Your task to perform on an android device: stop showing notifications on the lock screen Image 0: 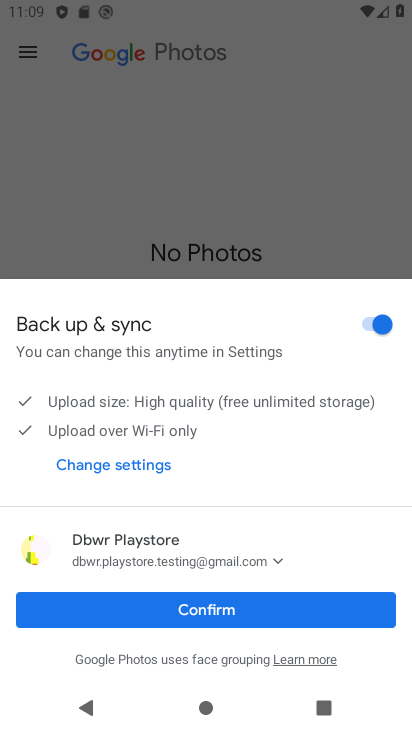
Step 0: click (264, 609)
Your task to perform on an android device: stop showing notifications on the lock screen Image 1: 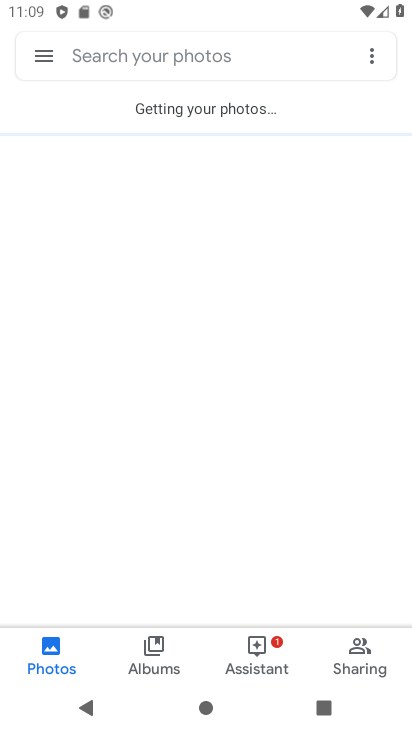
Step 1: press home button
Your task to perform on an android device: stop showing notifications on the lock screen Image 2: 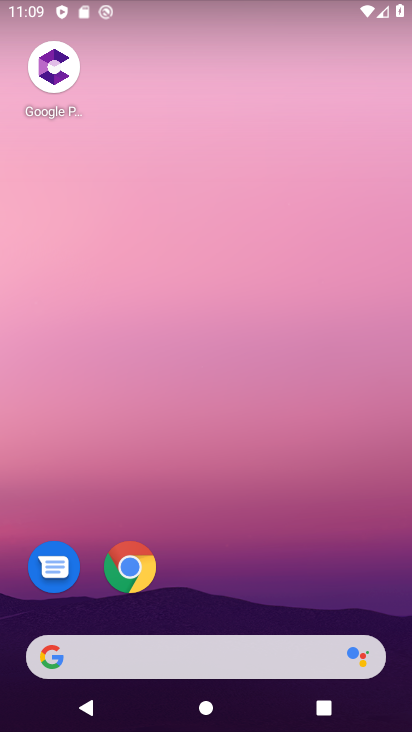
Step 2: drag from (331, 612) to (362, 152)
Your task to perform on an android device: stop showing notifications on the lock screen Image 3: 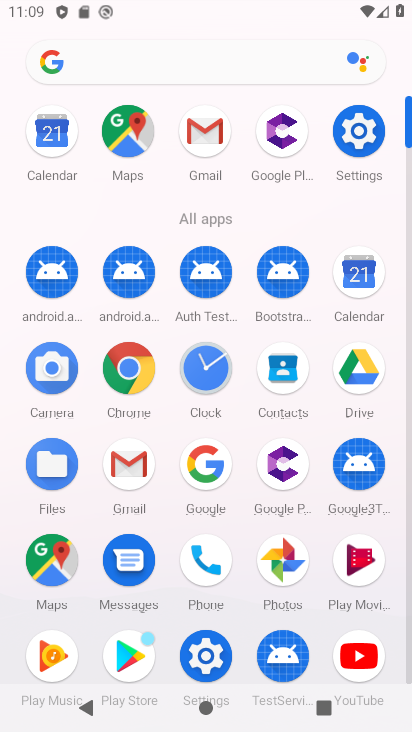
Step 3: click (187, 654)
Your task to perform on an android device: stop showing notifications on the lock screen Image 4: 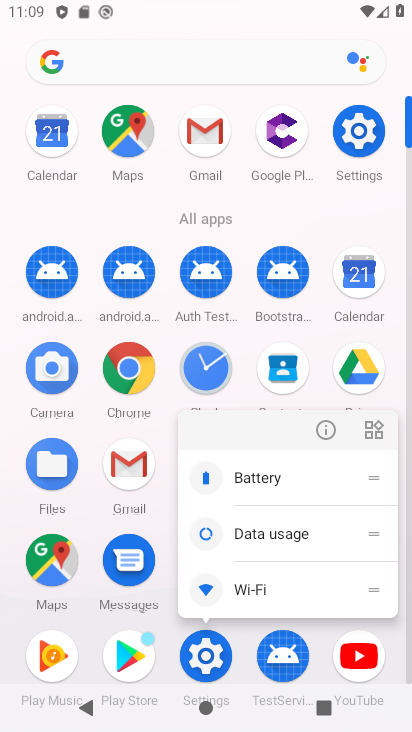
Step 4: click (197, 662)
Your task to perform on an android device: stop showing notifications on the lock screen Image 5: 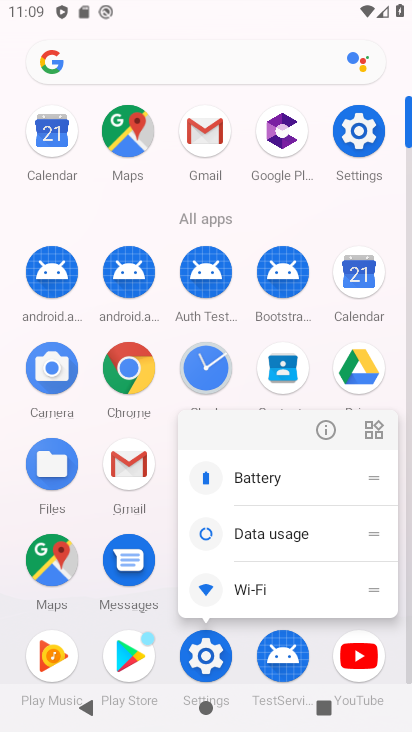
Step 5: click (198, 663)
Your task to perform on an android device: stop showing notifications on the lock screen Image 6: 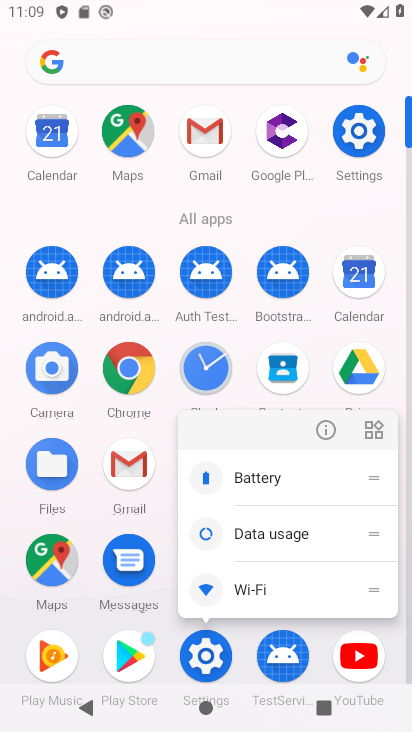
Step 6: click (215, 663)
Your task to perform on an android device: stop showing notifications on the lock screen Image 7: 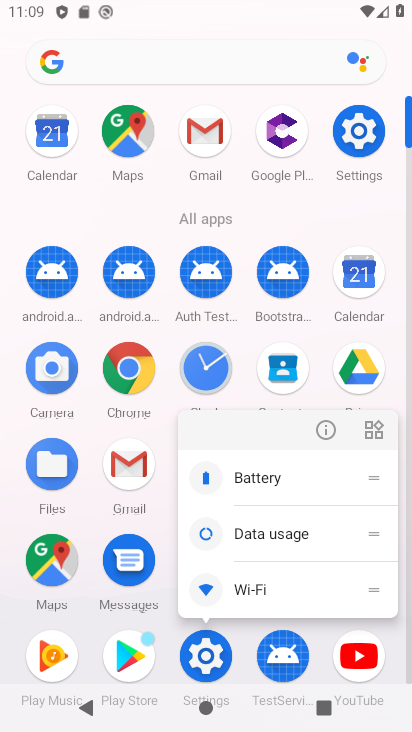
Step 7: click (218, 657)
Your task to perform on an android device: stop showing notifications on the lock screen Image 8: 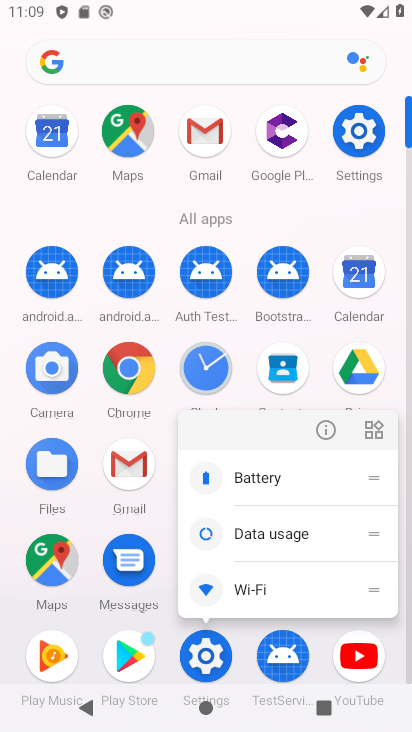
Step 8: click (219, 656)
Your task to perform on an android device: stop showing notifications on the lock screen Image 9: 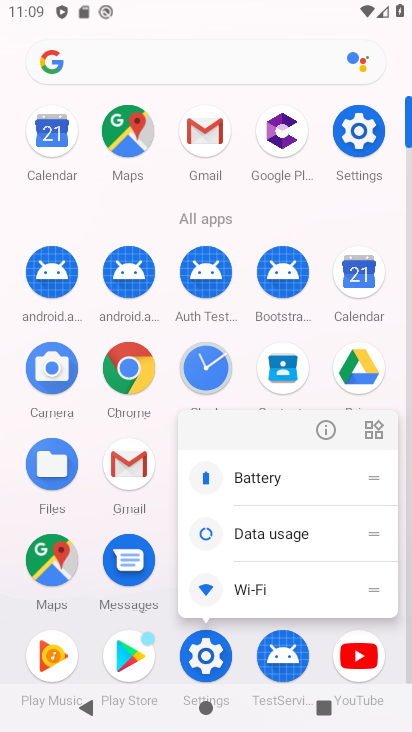
Step 9: click (374, 144)
Your task to perform on an android device: stop showing notifications on the lock screen Image 10: 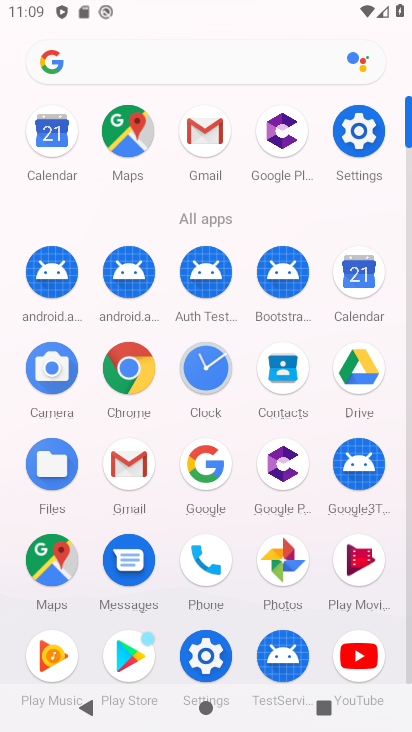
Step 10: click (364, 144)
Your task to perform on an android device: stop showing notifications on the lock screen Image 11: 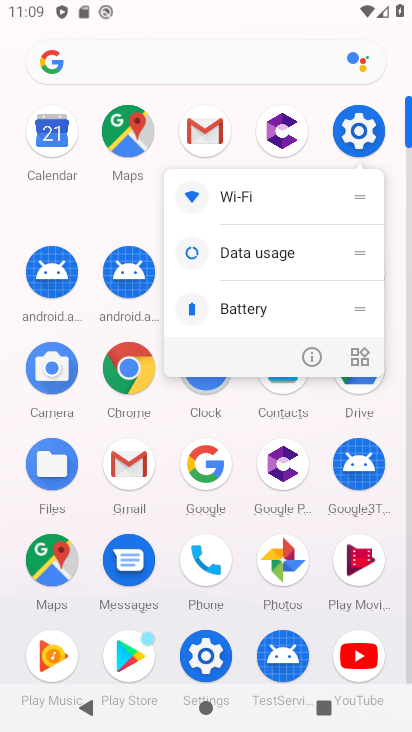
Step 11: click (364, 144)
Your task to perform on an android device: stop showing notifications on the lock screen Image 12: 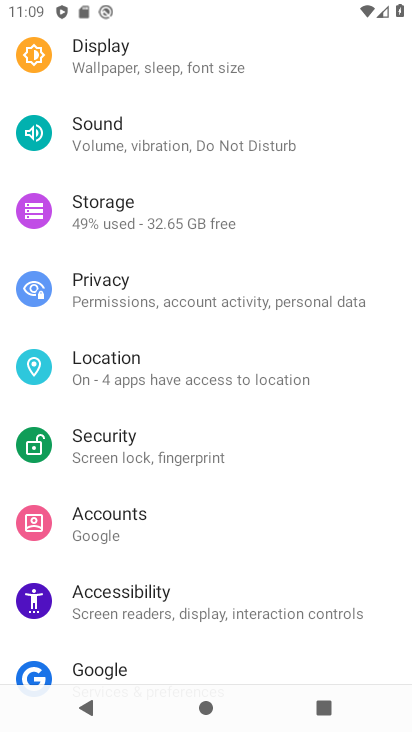
Step 12: drag from (263, 219) to (270, 473)
Your task to perform on an android device: stop showing notifications on the lock screen Image 13: 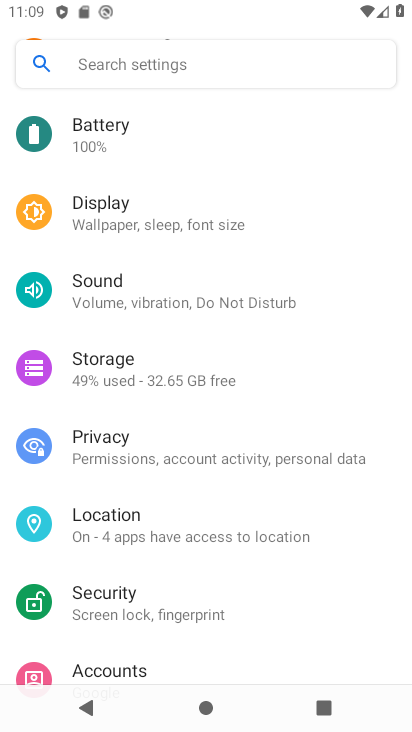
Step 13: drag from (293, 164) to (295, 491)
Your task to perform on an android device: stop showing notifications on the lock screen Image 14: 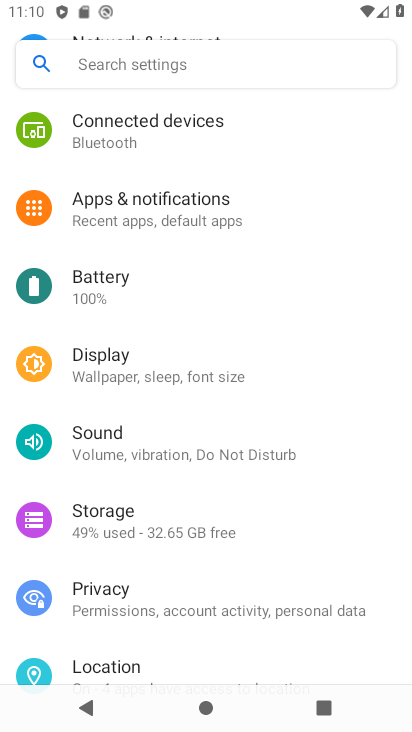
Step 14: click (128, 196)
Your task to perform on an android device: stop showing notifications on the lock screen Image 15: 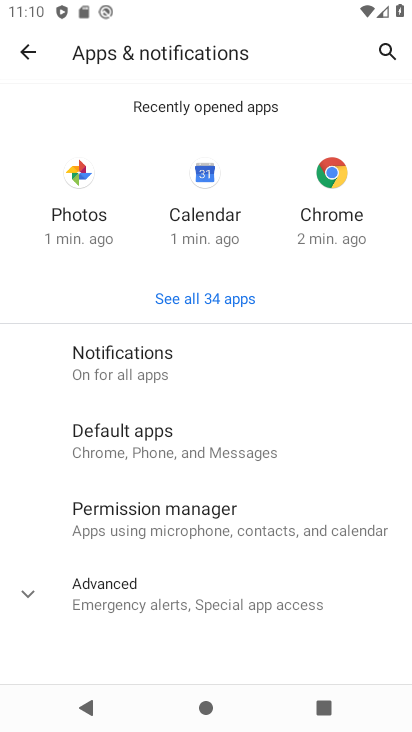
Step 15: click (117, 375)
Your task to perform on an android device: stop showing notifications on the lock screen Image 16: 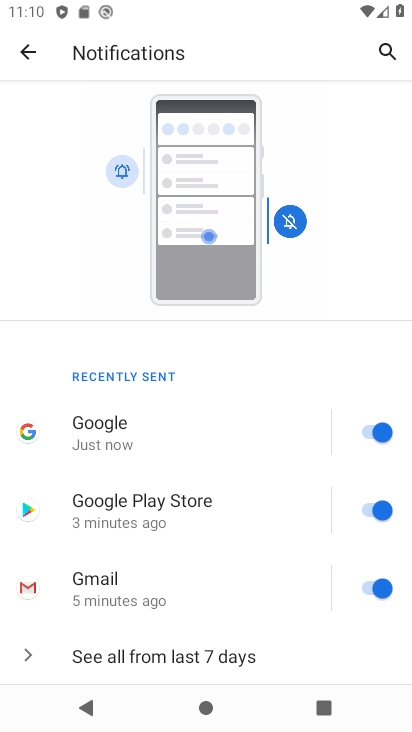
Step 16: drag from (274, 438) to (314, 243)
Your task to perform on an android device: stop showing notifications on the lock screen Image 17: 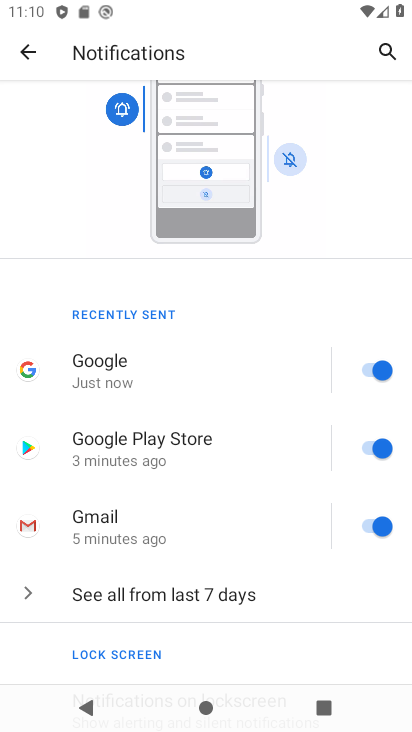
Step 17: drag from (286, 538) to (318, 288)
Your task to perform on an android device: stop showing notifications on the lock screen Image 18: 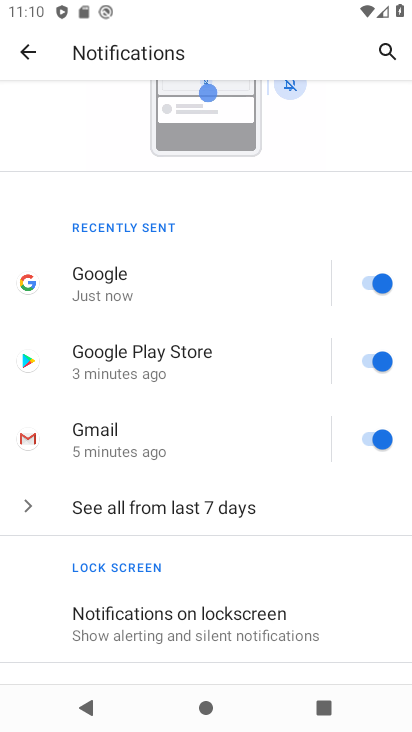
Step 18: click (268, 622)
Your task to perform on an android device: stop showing notifications on the lock screen Image 19: 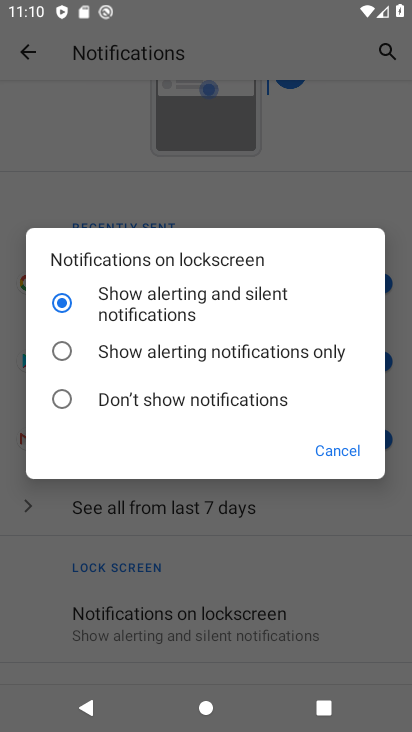
Step 19: click (61, 400)
Your task to perform on an android device: stop showing notifications on the lock screen Image 20: 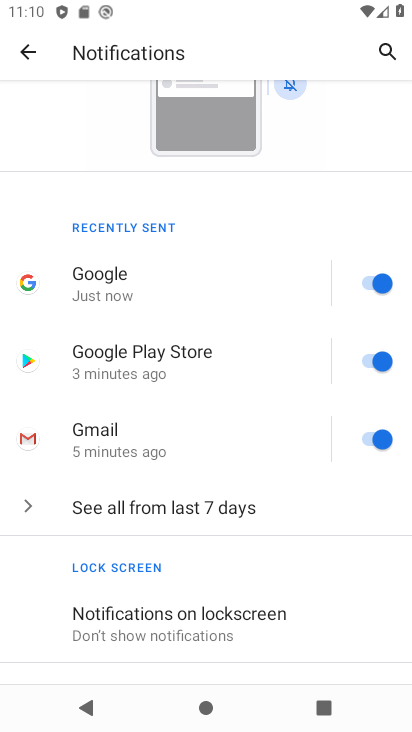
Step 20: task complete